Your task to perform on an android device: toggle notification dots Image 0: 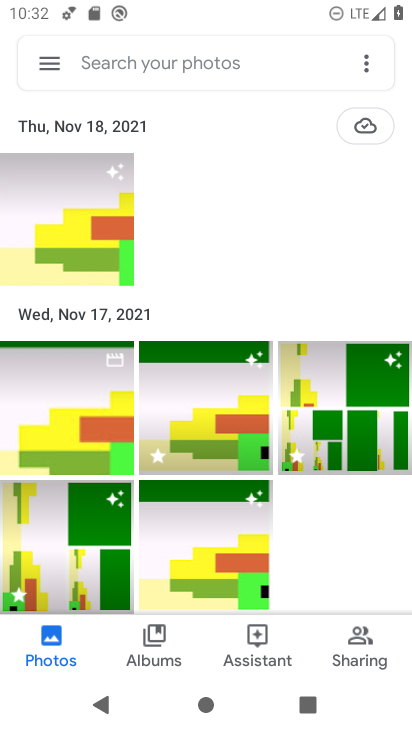
Step 0: press home button
Your task to perform on an android device: toggle notification dots Image 1: 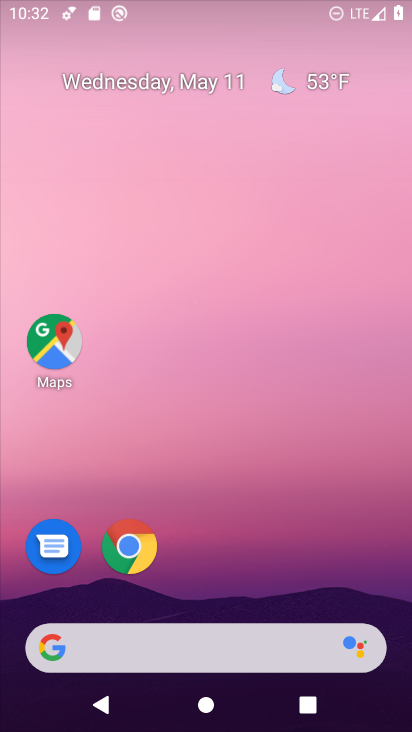
Step 1: drag from (402, 654) to (308, 3)
Your task to perform on an android device: toggle notification dots Image 2: 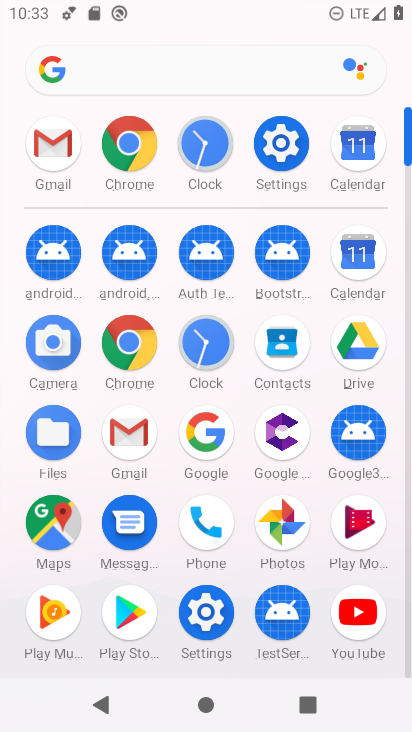
Step 2: click (216, 631)
Your task to perform on an android device: toggle notification dots Image 3: 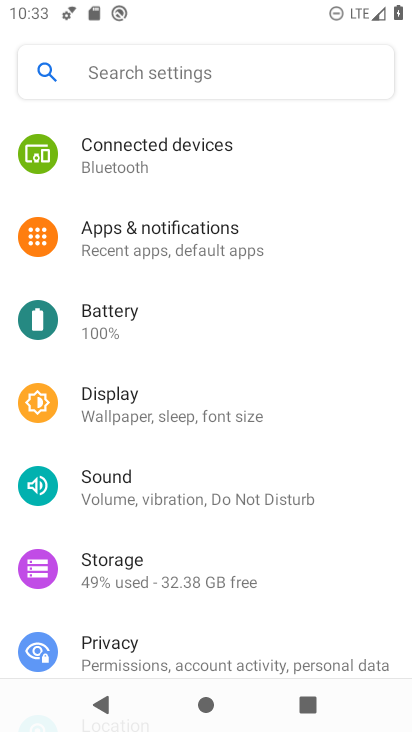
Step 3: click (211, 239)
Your task to perform on an android device: toggle notification dots Image 4: 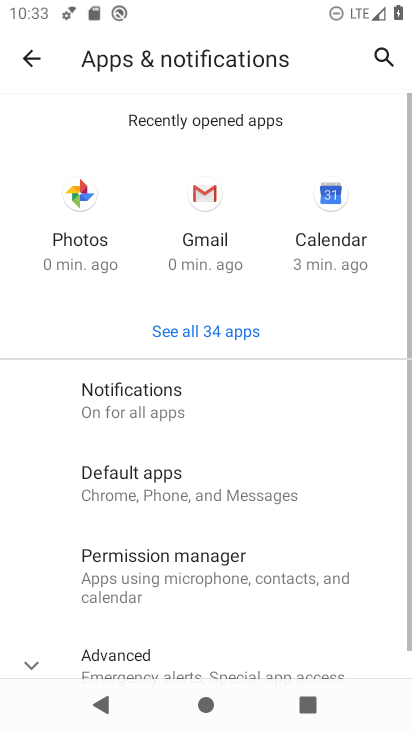
Step 4: click (155, 406)
Your task to perform on an android device: toggle notification dots Image 5: 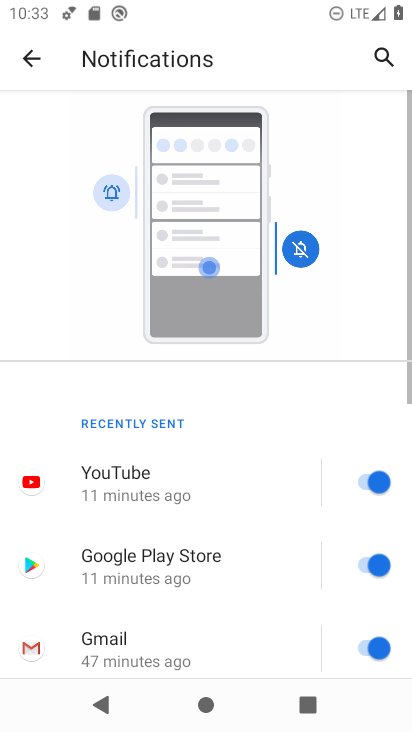
Step 5: drag from (256, 627) to (280, 15)
Your task to perform on an android device: toggle notification dots Image 6: 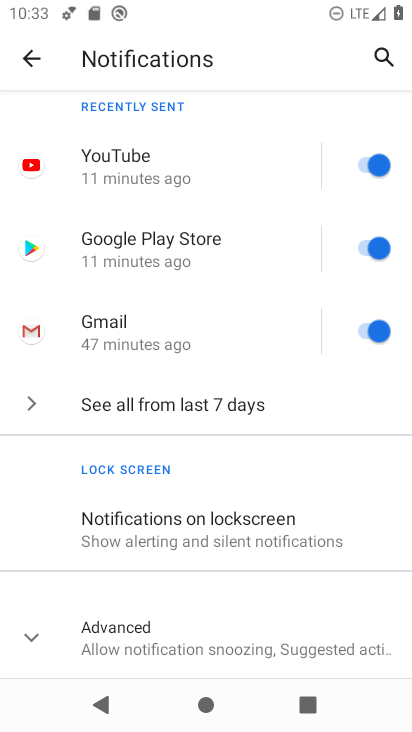
Step 6: click (135, 651)
Your task to perform on an android device: toggle notification dots Image 7: 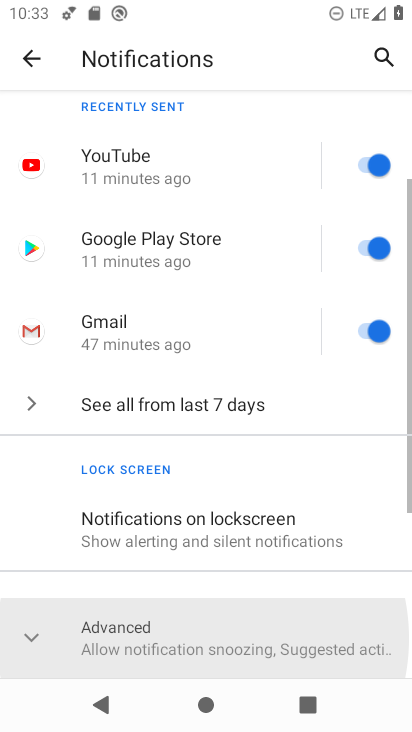
Step 7: drag from (210, 633) to (289, 88)
Your task to perform on an android device: toggle notification dots Image 8: 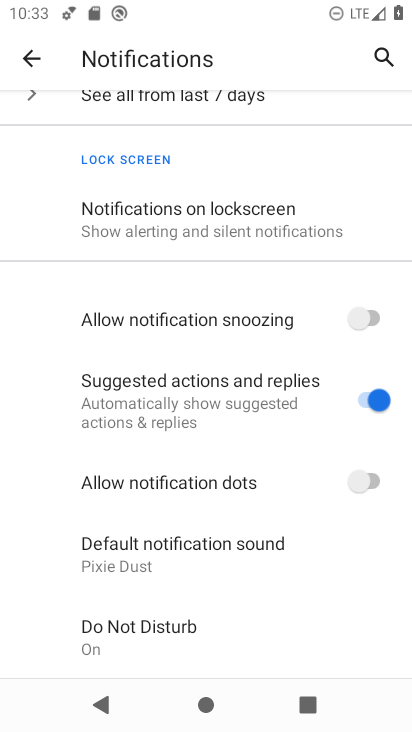
Step 8: click (272, 487)
Your task to perform on an android device: toggle notification dots Image 9: 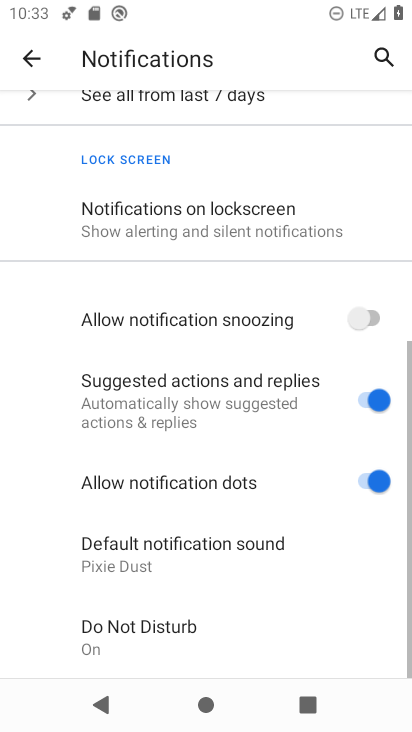
Step 9: task complete